Your task to perform on an android device: When is my next meeting? Image 0: 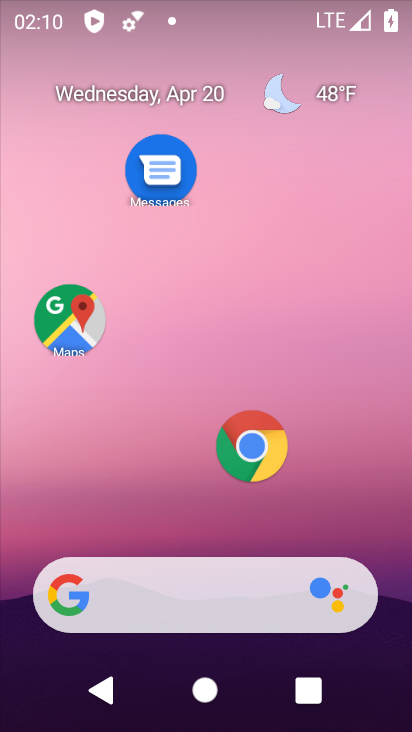
Step 0: drag from (205, 536) to (232, 90)
Your task to perform on an android device: When is my next meeting? Image 1: 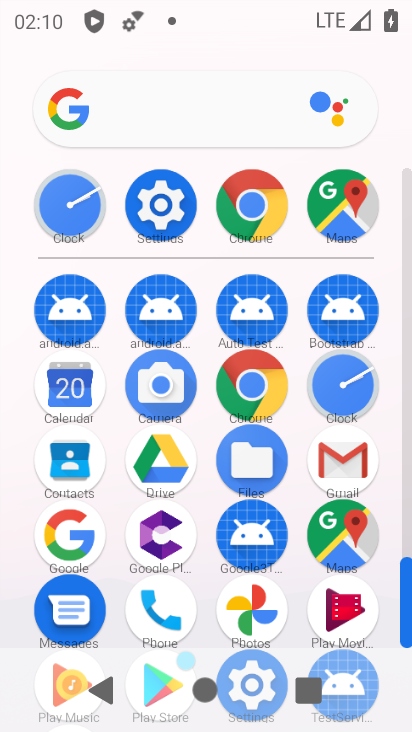
Step 1: click (67, 383)
Your task to perform on an android device: When is my next meeting? Image 2: 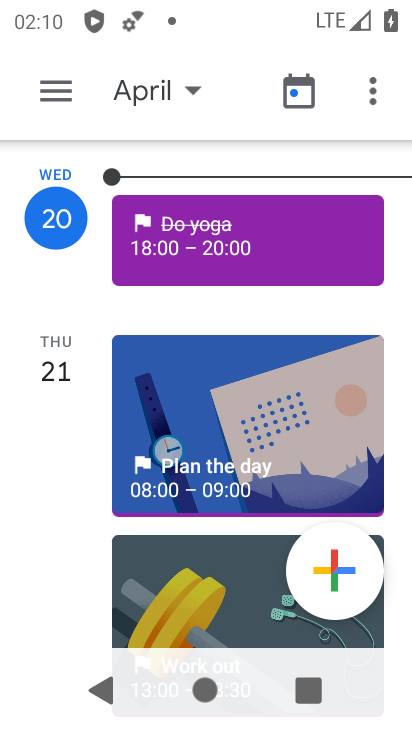
Step 2: drag from (58, 539) to (76, 194)
Your task to perform on an android device: When is my next meeting? Image 3: 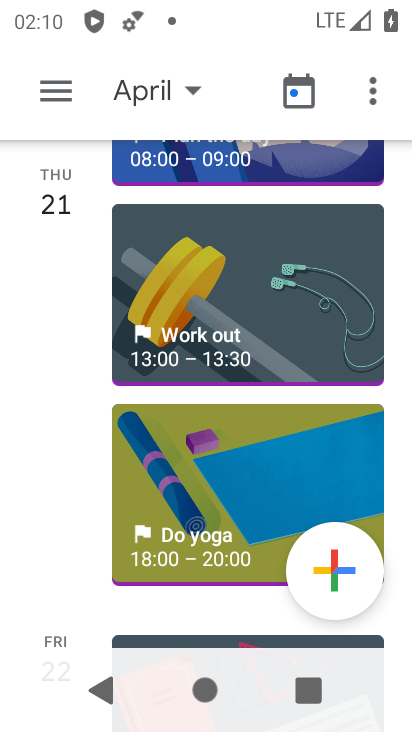
Step 3: drag from (70, 568) to (75, 210)
Your task to perform on an android device: When is my next meeting? Image 4: 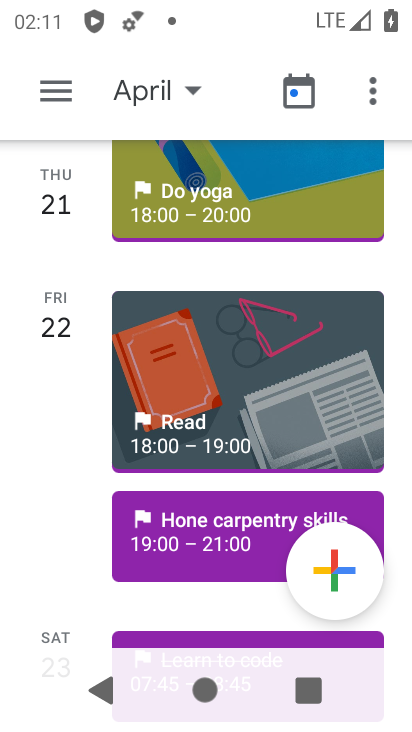
Step 4: drag from (77, 594) to (134, 232)
Your task to perform on an android device: When is my next meeting? Image 5: 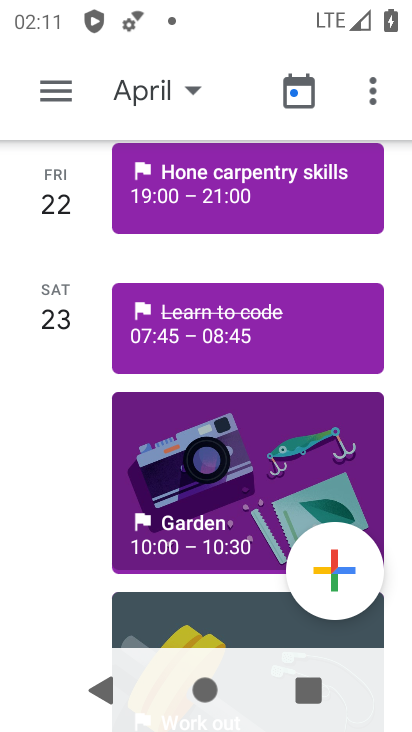
Step 5: drag from (61, 605) to (123, 173)
Your task to perform on an android device: When is my next meeting? Image 6: 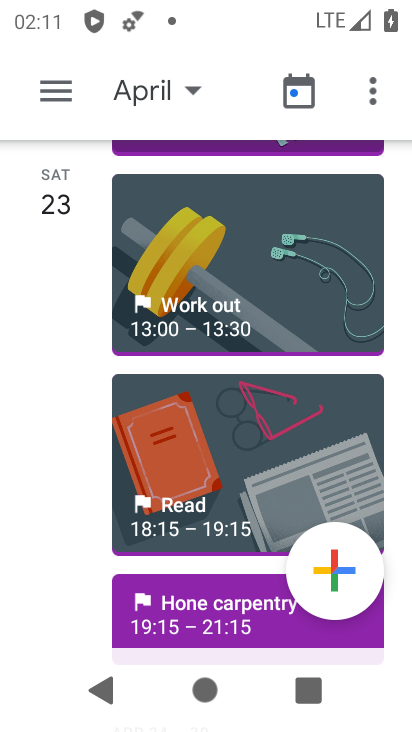
Step 6: drag from (86, 626) to (159, 179)
Your task to perform on an android device: When is my next meeting? Image 7: 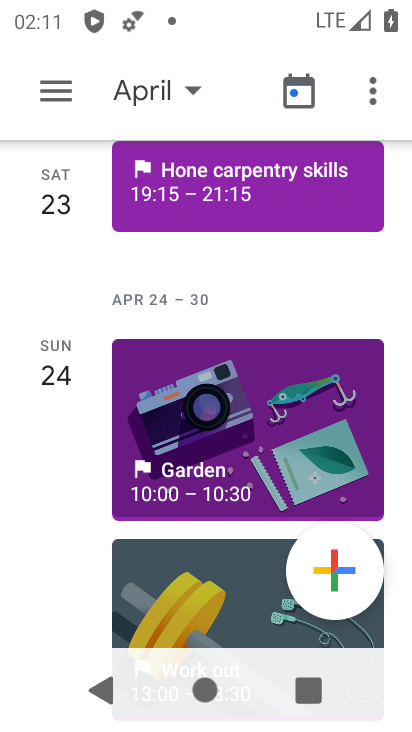
Step 7: drag from (62, 607) to (72, 302)
Your task to perform on an android device: When is my next meeting? Image 8: 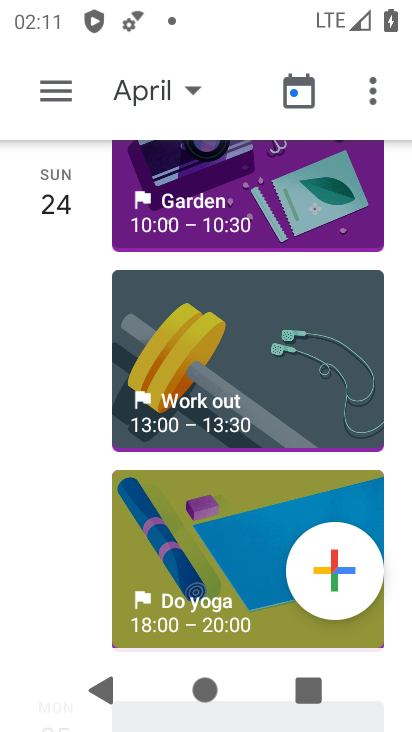
Step 8: click (79, 273)
Your task to perform on an android device: When is my next meeting? Image 9: 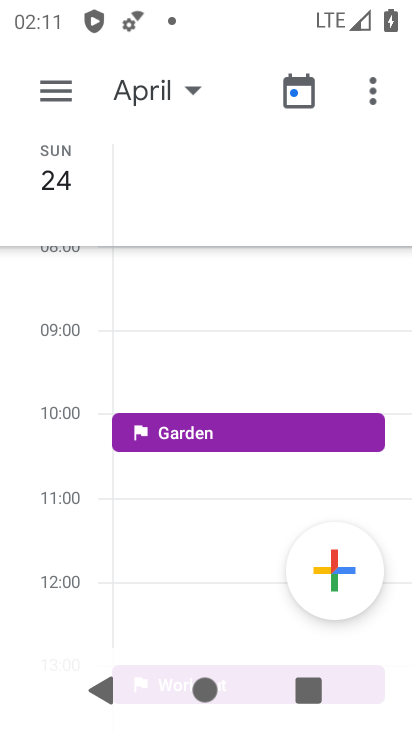
Step 9: task complete